Your task to perform on an android device: star an email in the gmail app Image 0: 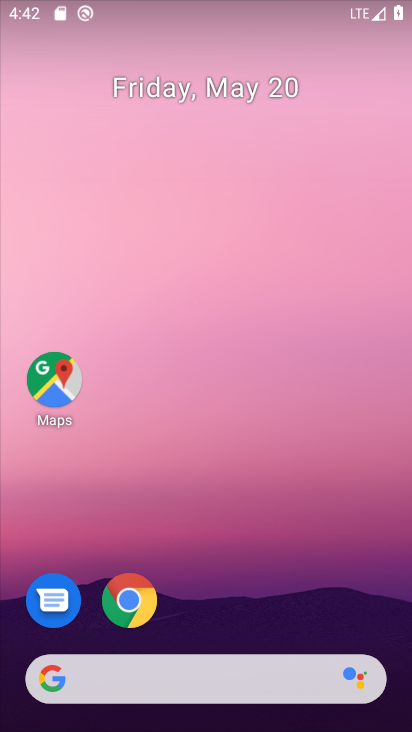
Step 0: drag from (256, 465) to (184, 102)
Your task to perform on an android device: star an email in the gmail app Image 1: 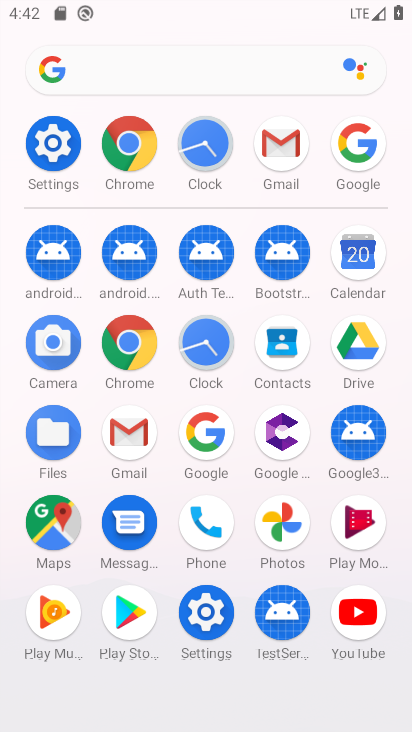
Step 1: click (278, 133)
Your task to perform on an android device: star an email in the gmail app Image 2: 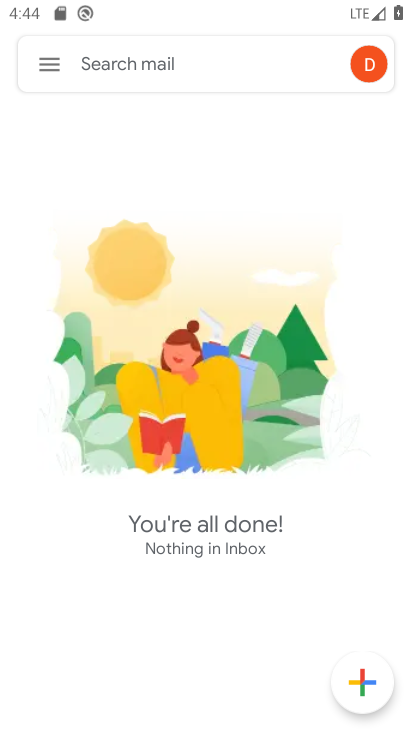
Step 2: task complete